Your task to perform on an android device: Open ESPN.com Image 0: 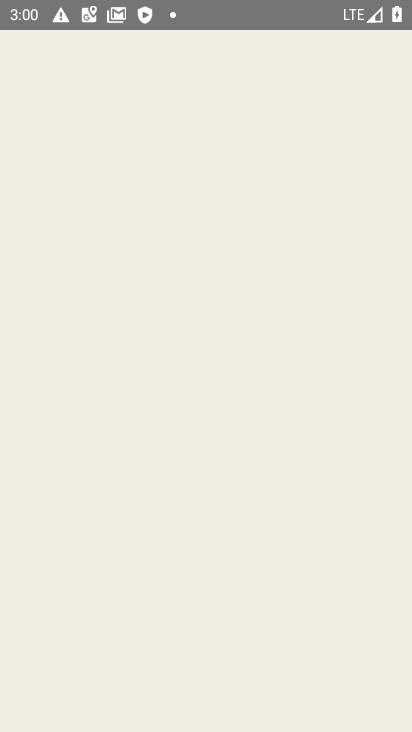
Step 0: drag from (263, 575) to (191, 99)
Your task to perform on an android device: Open ESPN.com Image 1: 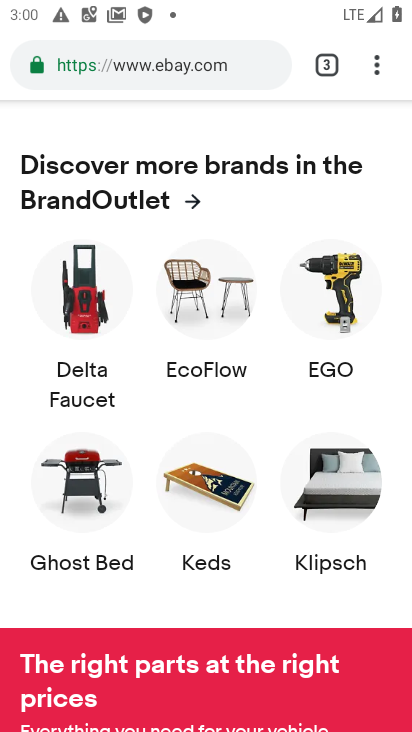
Step 1: press home button
Your task to perform on an android device: Open ESPN.com Image 2: 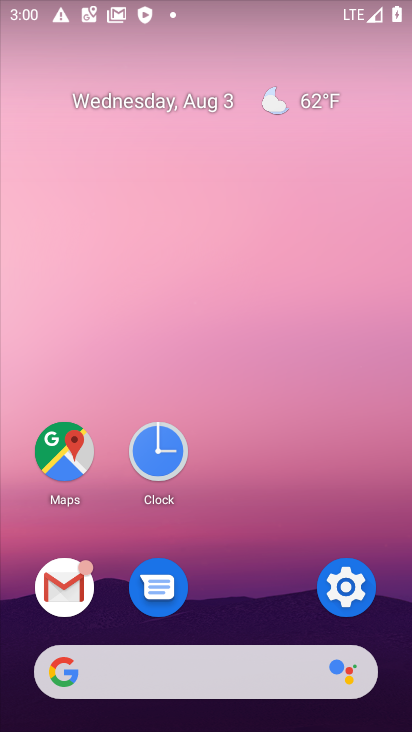
Step 2: drag from (265, 585) to (214, 6)
Your task to perform on an android device: Open ESPN.com Image 3: 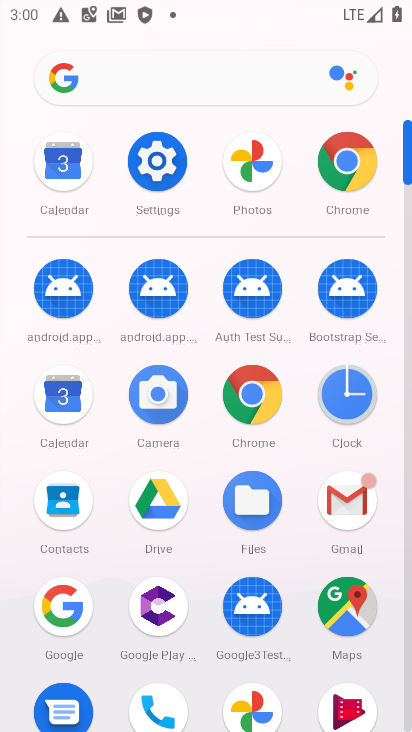
Step 3: click (346, 167)
Your task to perform on an android device: Open ESPN.com Image 4: 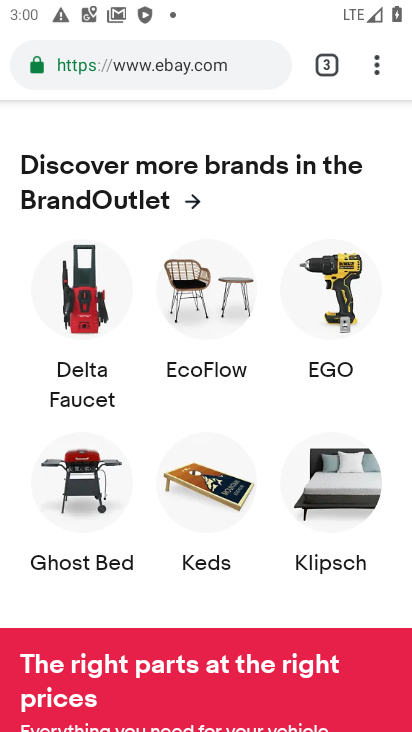
Step 4: click (382, 62)
Your task to perform on an android device: Open ESPN.com Image 5: 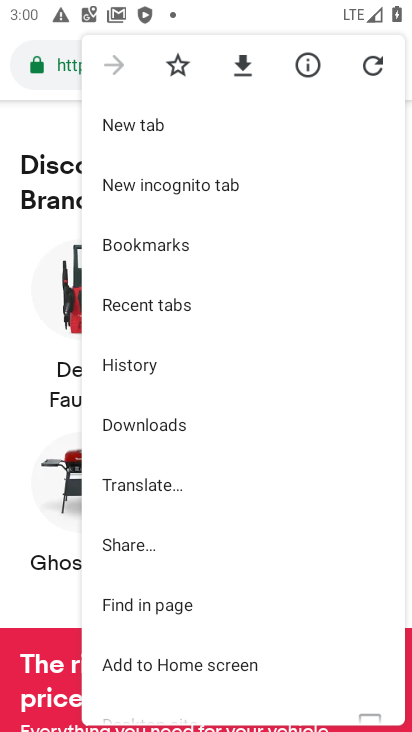
Step 5: click (147, 119)
Your task to perform on an android device: Open ESPN.com Image 6: 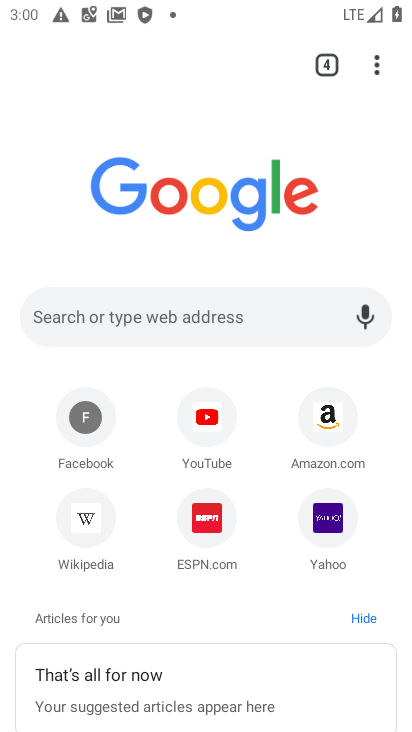
Step 6: click (205, 528)
Your task to perform on an android device: Open ESPN.com Image 7: 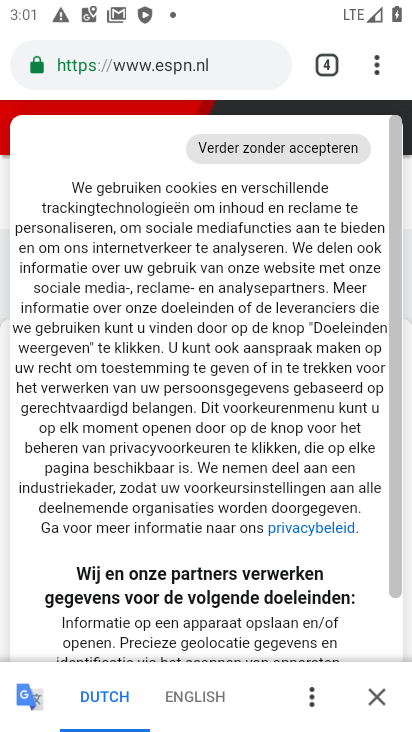
Step 7: drag from (293, 417) to (258, 113)
Your task to perform on an android device: Open ESPN.com Image 8: 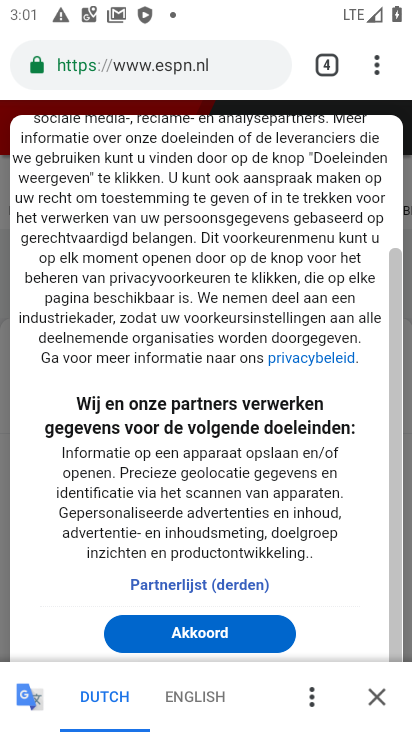
Step 8: click (393, 605)
Your task to perform on an android device: Open ESPN.com Image 9: 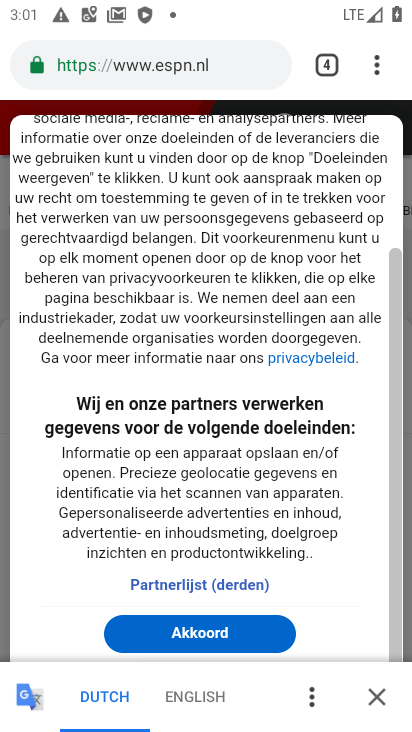
Step 9: click (399, 636)
Your task to perform on an android device: Open ESPN.com Image 10: 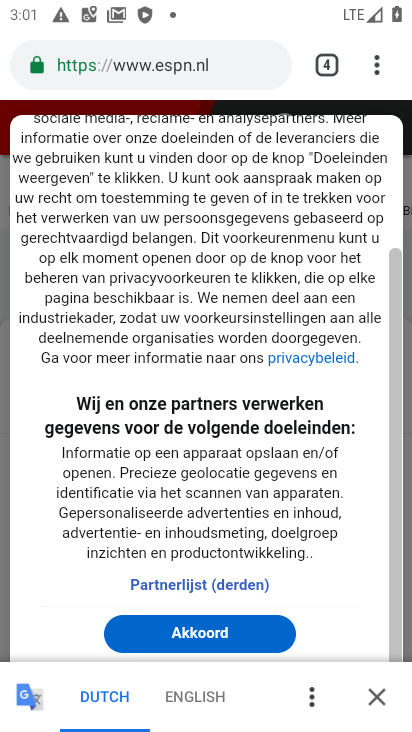
Step 10: click (207, 628)
Your task to perform on an android device: Open ESPN.com Image 11: 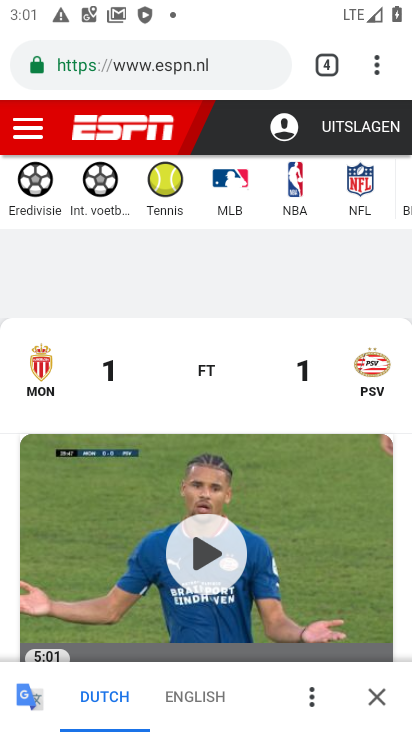
Step 11: task complete